Your task to perform on an android device: create a new album in the google photos Image 0: 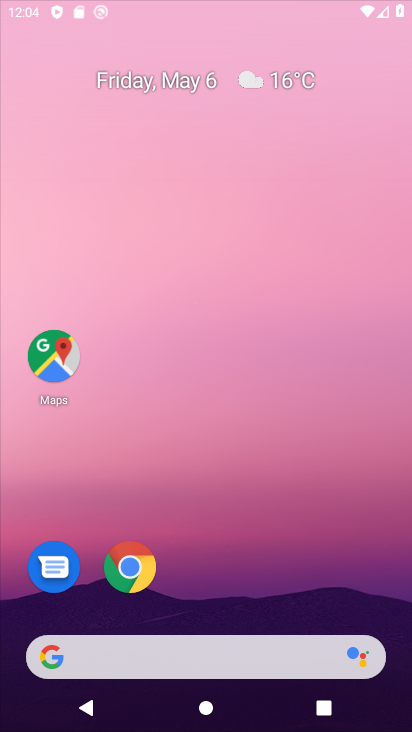
Step 0: click (262, 57)
Your task to perform on an android device: create a new album in the google photos Image 1: 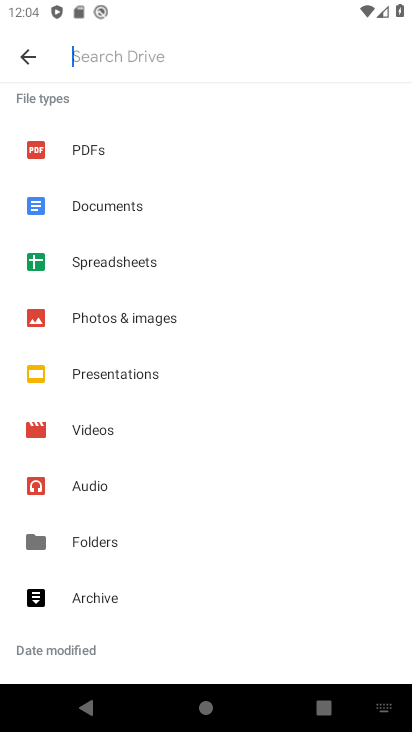
Step 1: press home button
Your task to perform on an android device: create a new album in the google photos Image 2: 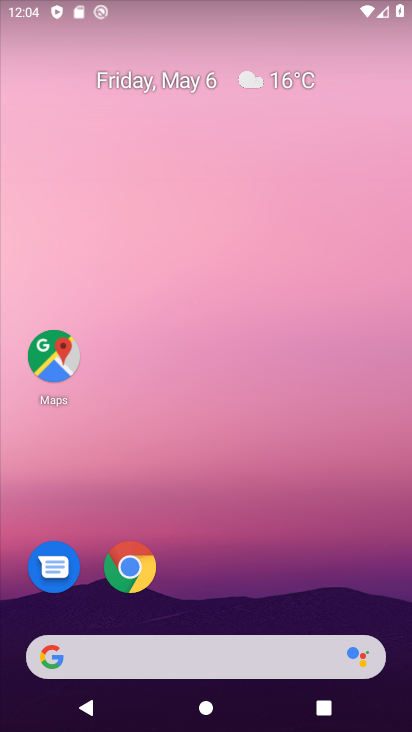
Step 2: drag from (294, 572) to (317, 164)
Your task to perform on an android device: create a new album in the google photos Image 3: 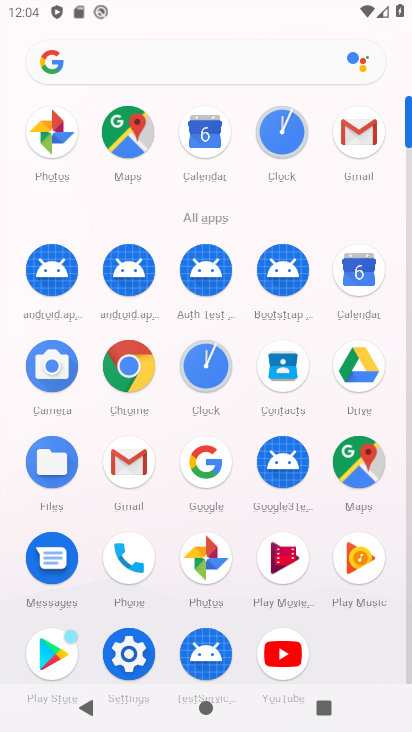
Step 3: click (40, 136)
Your task to perform on an android device: create a new album in the google photos Image 4: 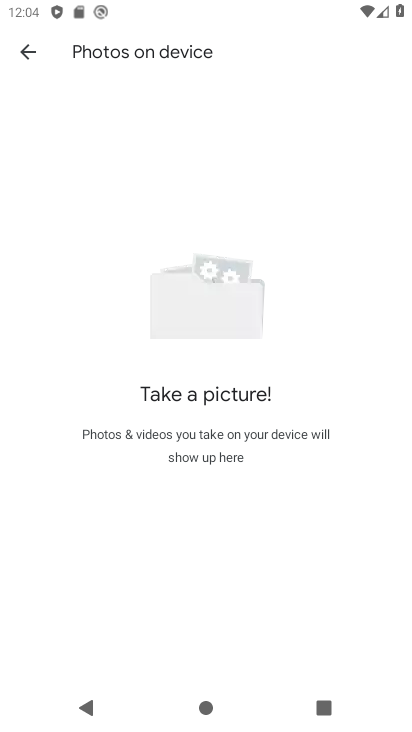
Step 4: click (51, 44)
Your task to perform on an android device: create a new album in the google photos Image 5: 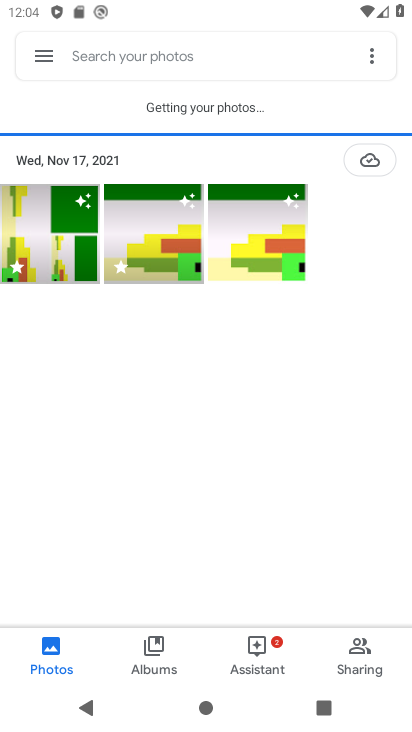
Step 5: click (143, 639)
Your task to perform on an android device: create a new album in the google photos Image 6: 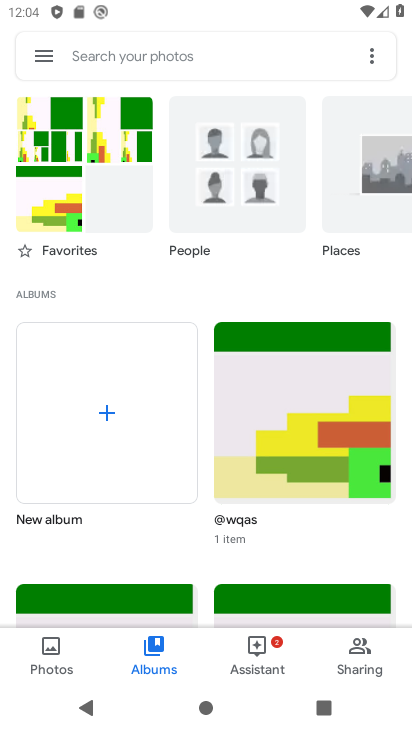
Step 6: click (102, 409)
Your task to perform on an android device: create a new album in the google photos Image 7: 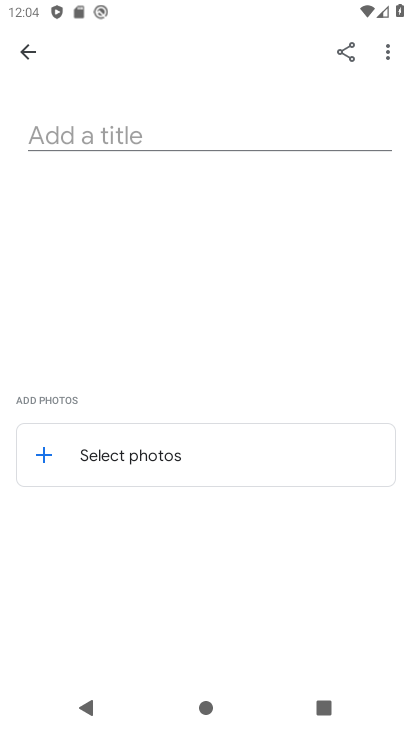
Step 7: click (147, 475)
Your task to perform on an android device: create a new album in the google photos Image 8: 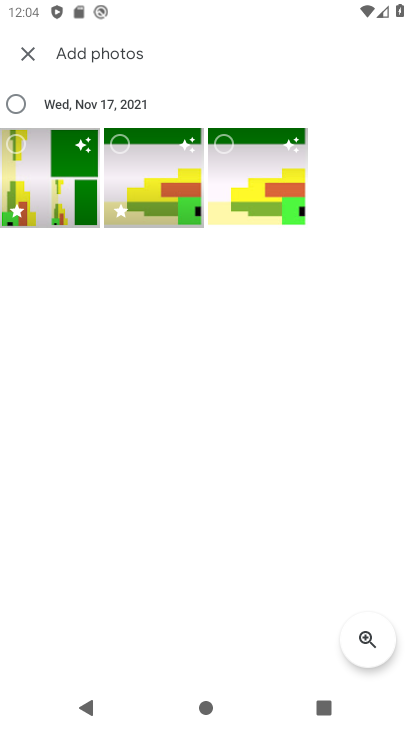
Step 8: click (12, 165)
Your task to perform on an android device: create a new album in the google photos Image 9: 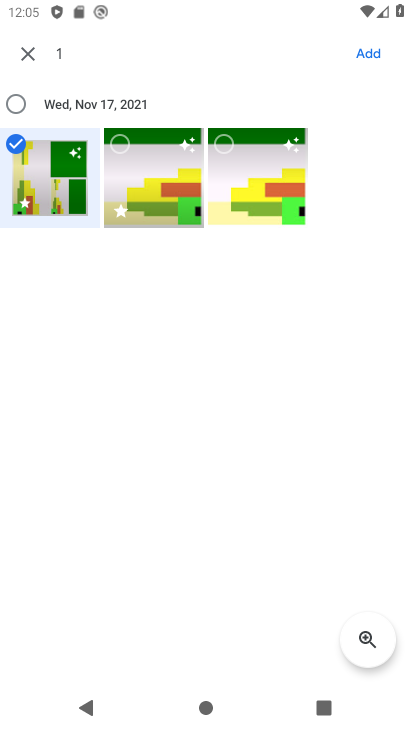
Step 9: click (126, 152)
Your task to perform on an android device: create a new album in the google photos Image 10: 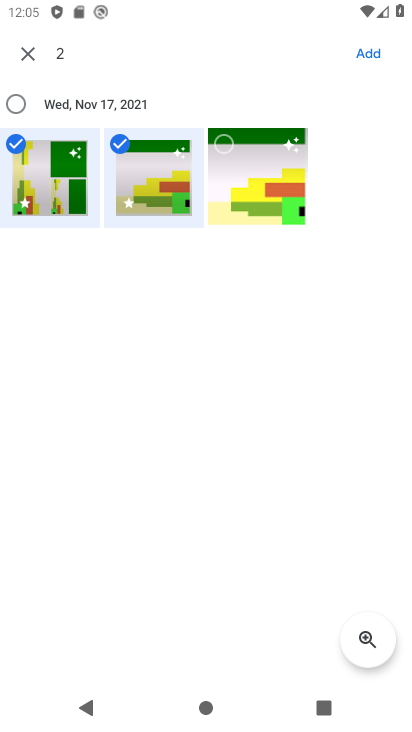
Step 10: click (230, 152)
Your task to perform on an android device: create a new album in the google photos Image 11: 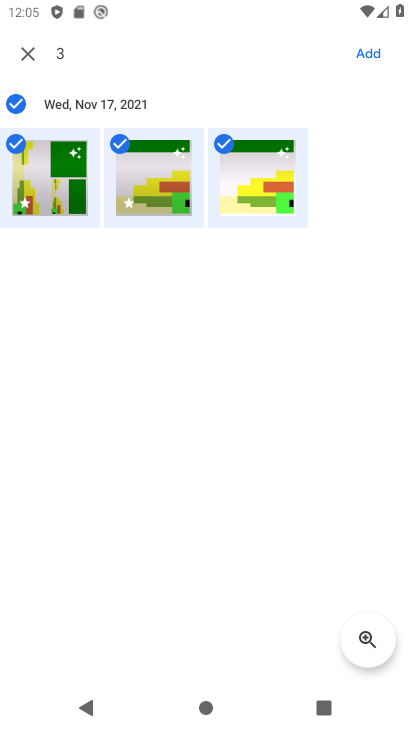
Step 11: click (338, 54)
Your task to perform on an android device: create a new album in the google photos Image 12: 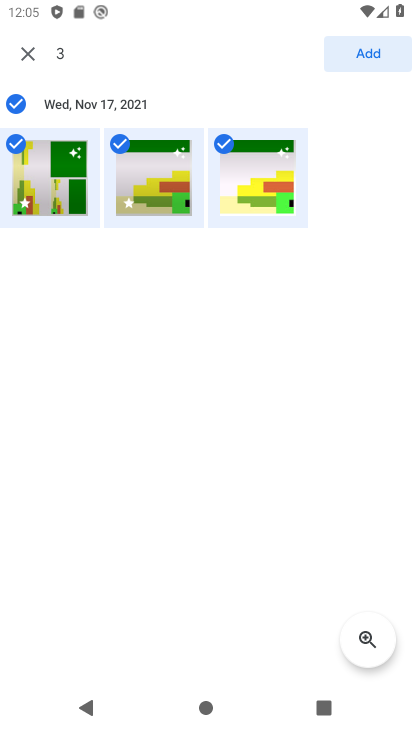
Step 12: click (358, 52)
Your task to perform on an android device: create a new album in the google photos Image 13: 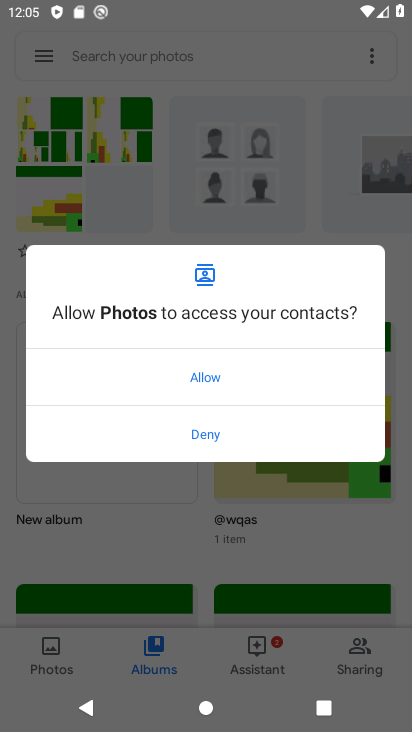
Step 13: task complete